Your task to perform on an android device: Show me popular videos on Youtube Image 0: 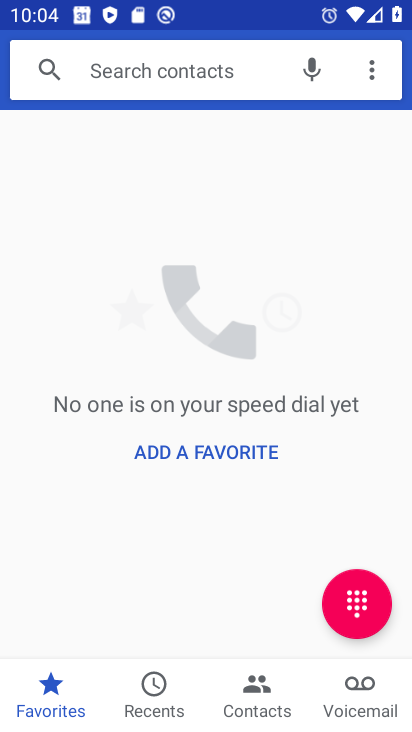
Step 0: press home button
Your task to perform on an android device: Show me popular videos on Youtube Image 1: 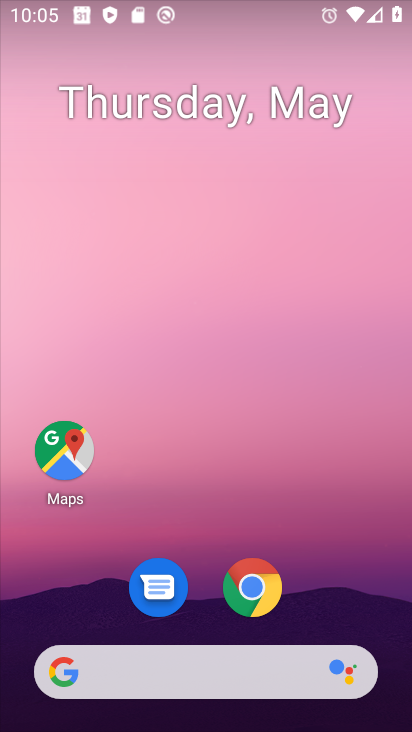
Step 1: drag from (385, 653) to (291, 40)
Your task to perform on an android device: Show me popular videos on Youtube Image 2: 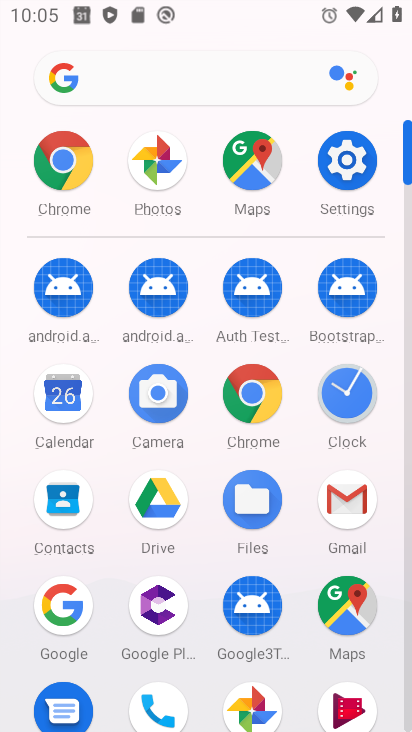
Step 2: drag from (310, 689) to (309, 185)
Your task to perform on an android device: Show me popular videos on Youtube Image 3: 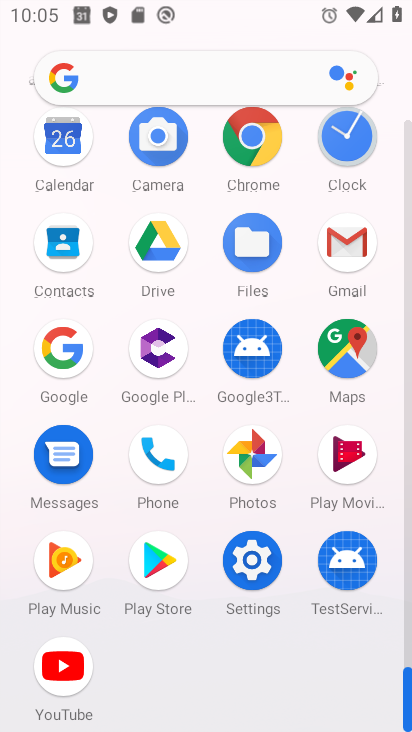
Step 3: click (52, 672)
Your task to perform on an android device: Show me popular videos on Youtube Image 4: 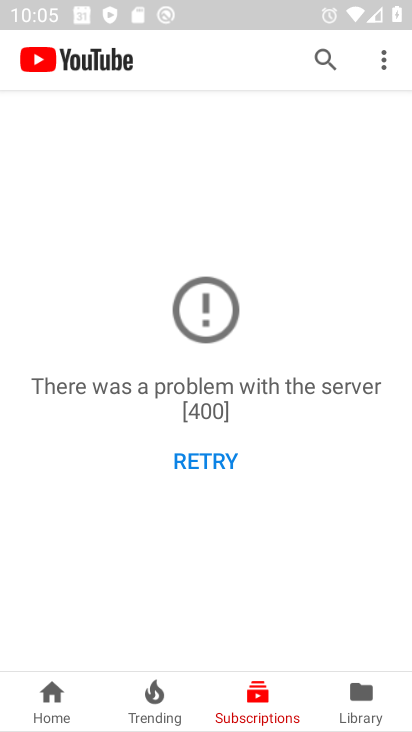
Step 4: task complete